Your task to perform on an android device: change text size in settings app Image 0: 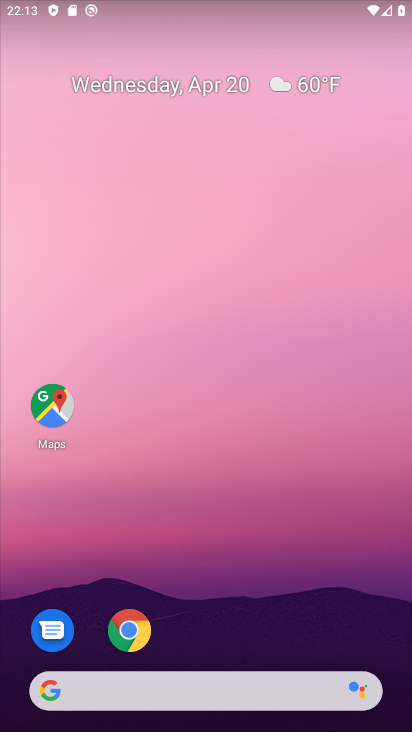
Step 0: drag from (222, 641) to (285, 88)
Your task to perform on an android device: change text size in settings app Image 1: 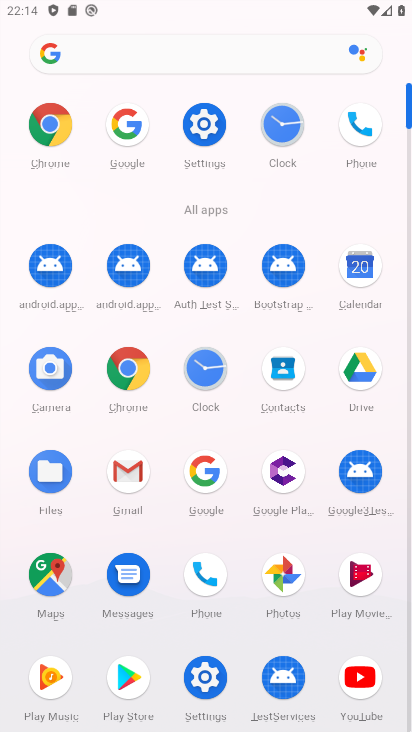
Step 1: click (209, 124)
Your task to perform on an android device: change text size in settings app Image 2: 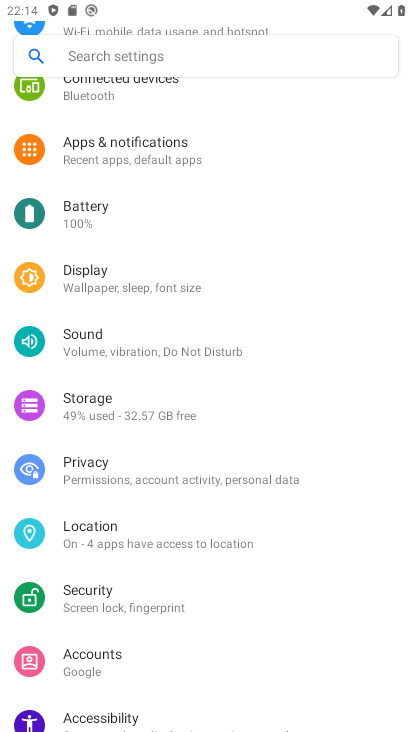
Step 2: click (183, 279)
Your task to perform on an android device: change text size in settings app Image 3: 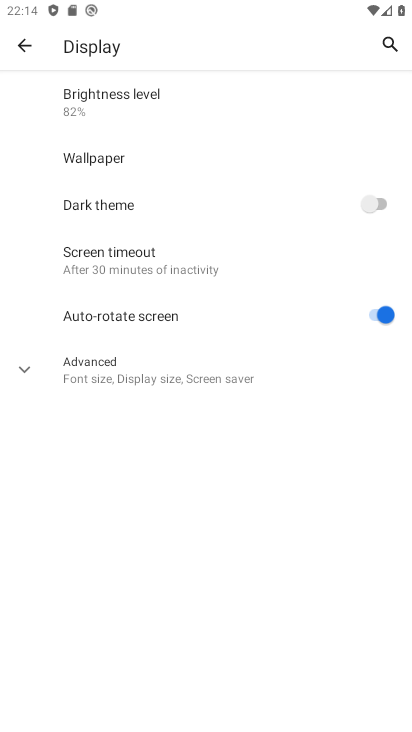
Step 3: click (137, 377)
Your task to perform on an android device: change text size in settings app Image 4: 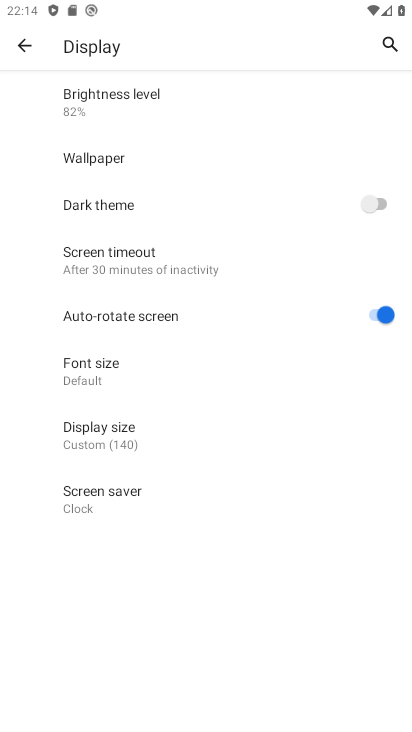
Step 4: click (152, 386)
Your task to perform on an android device: change text size in settings app Image 5: 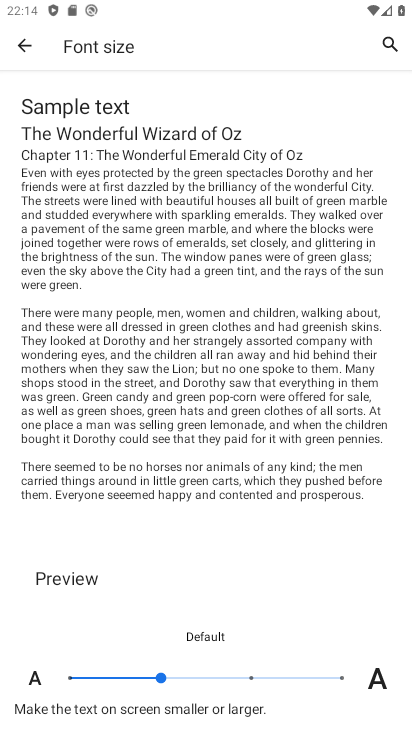
Step 5: click (251, 677)
Your task to perform on an android device: change text size in settings app Image 6: 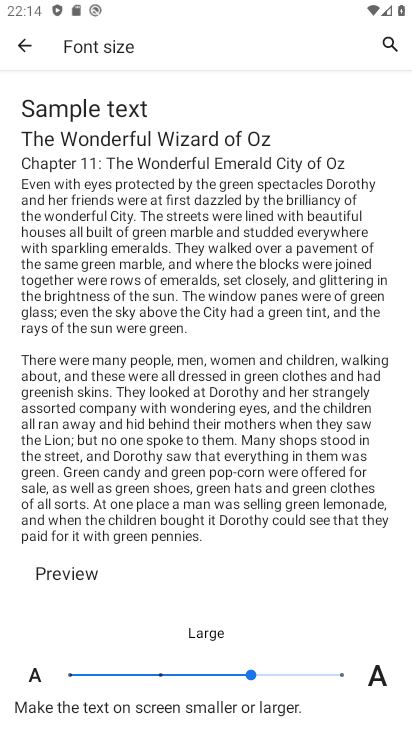
Step 6: task complete